Your task to perform on an android device: Empty the shopping cart on bestbuy.com. Add "macbook pro 13 inch" to the cart on bestbuy.com Image 0: 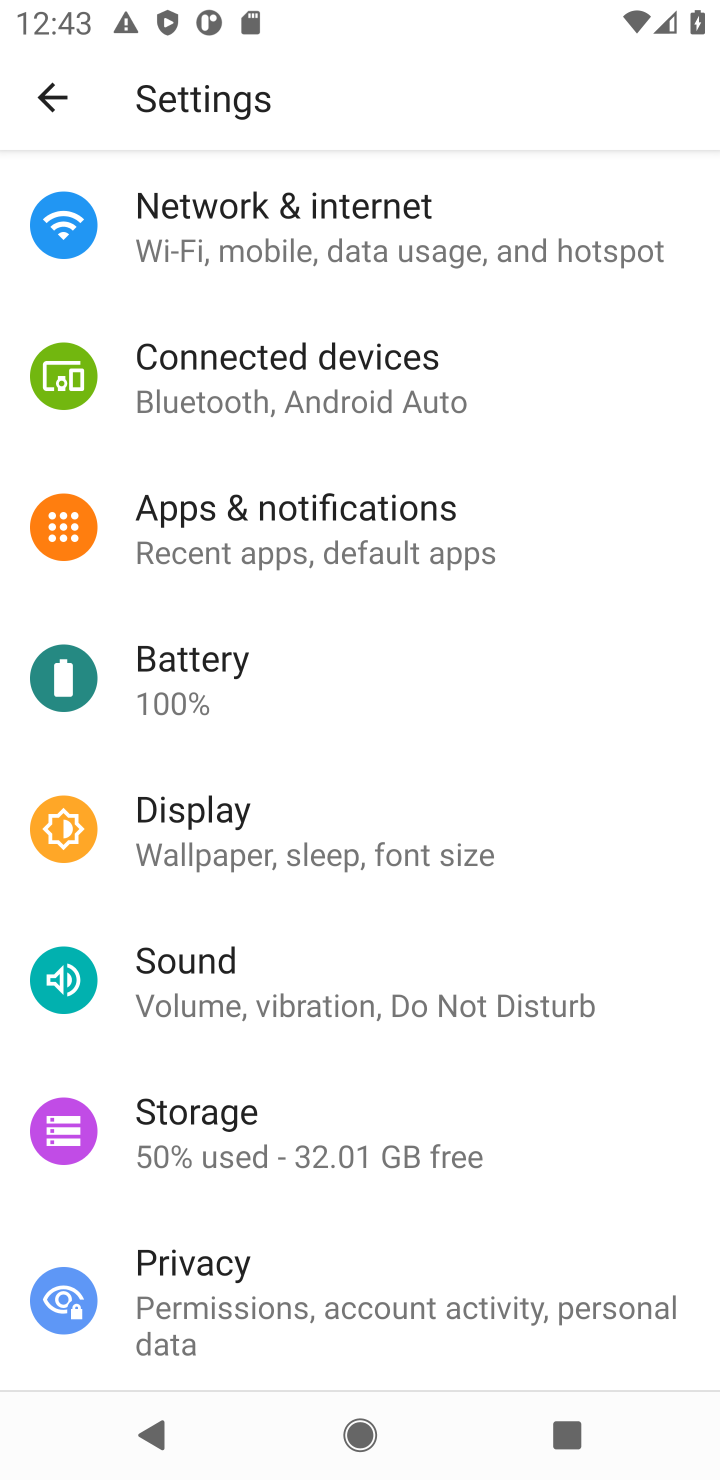
Step 0: press home button
Your task to perform on an android device: Empty the shopping cart on bestbuy.com. Add "macbook pro 13 inch" to the cart on bestbuy.com Image 1: 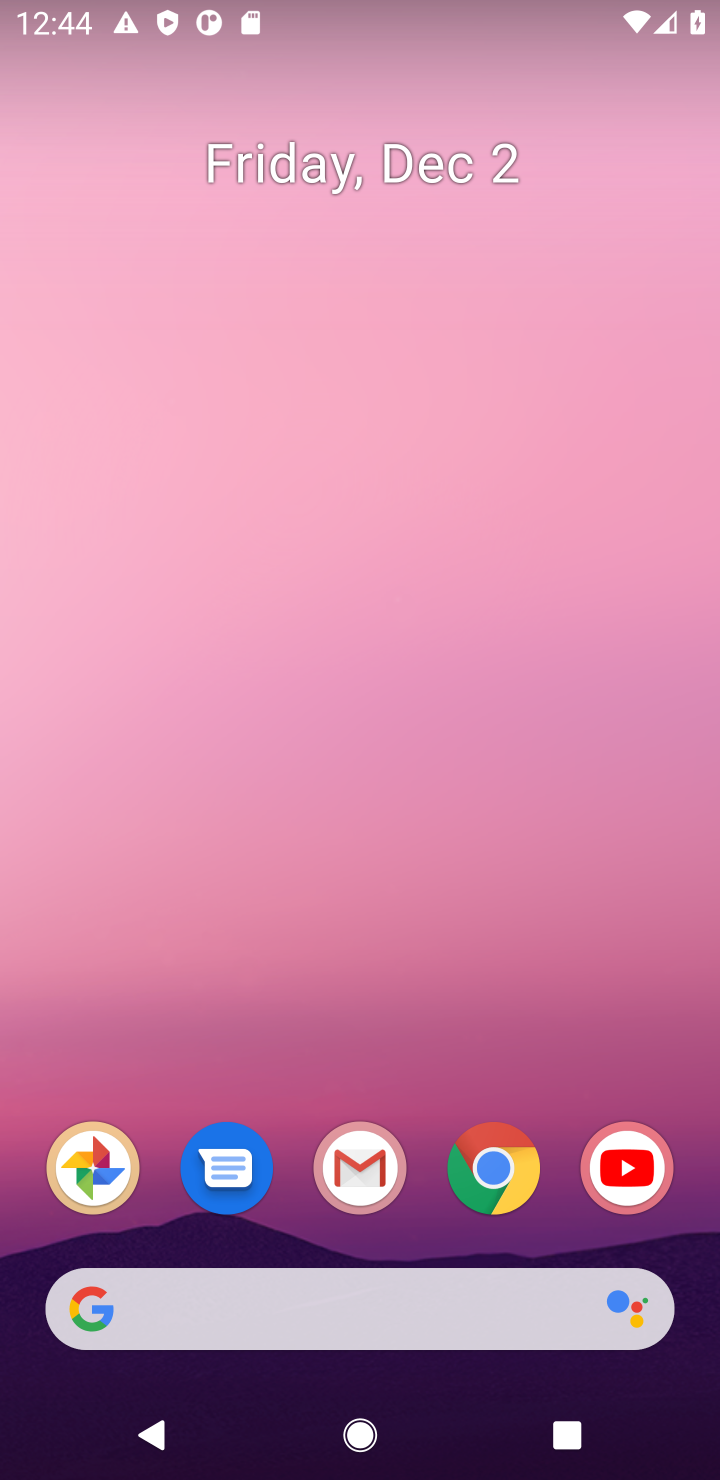
Step 1: click (86, 1297)
Your task to perform on an android device: Empty the shopping cart on bestbuy.com. Add "macbook pro 13 inch" to the cart on bestbuy.com Image 2: 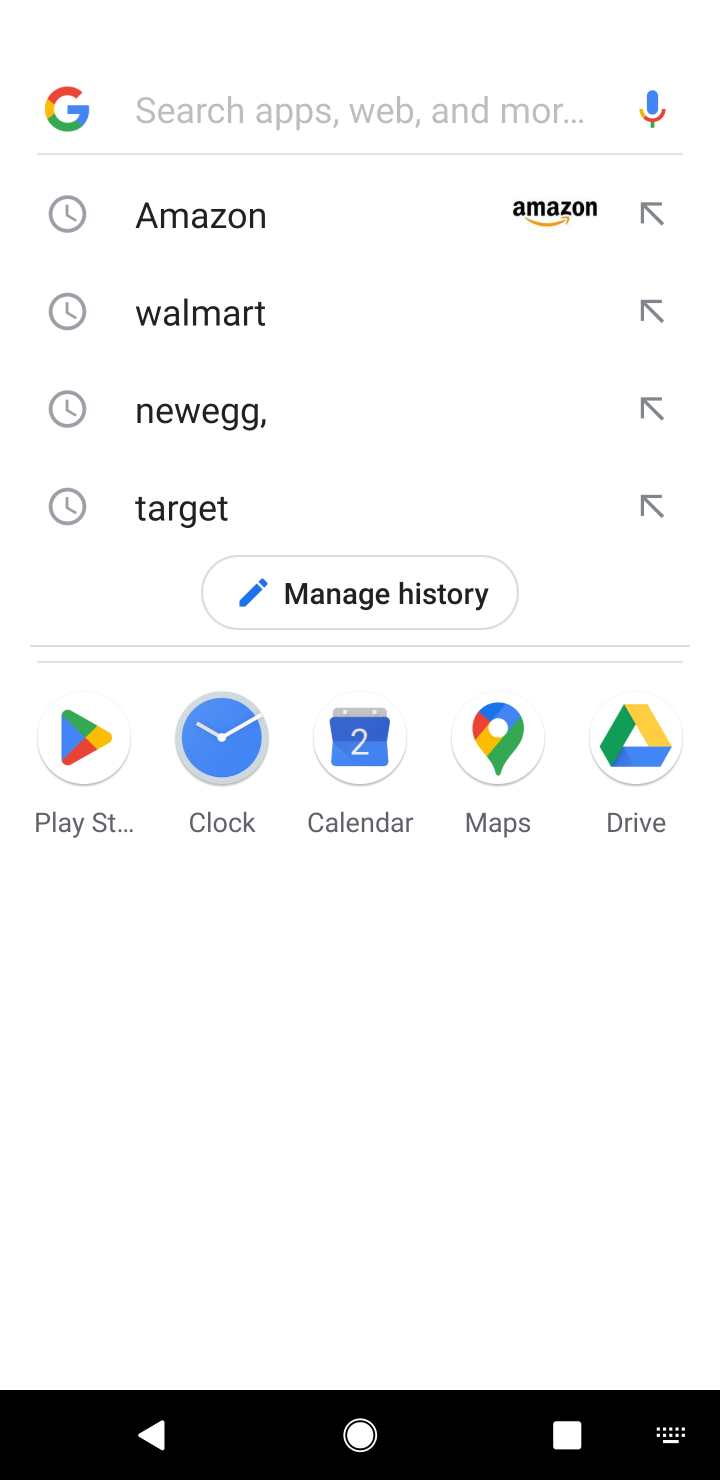
Step 2: type "bestbuy.com"
Your task to perform on an android device: Empty the shopping cart on bestbuy.com. Add "macbook pro 13 inch" to the cart on bestbuy.com Image 3: 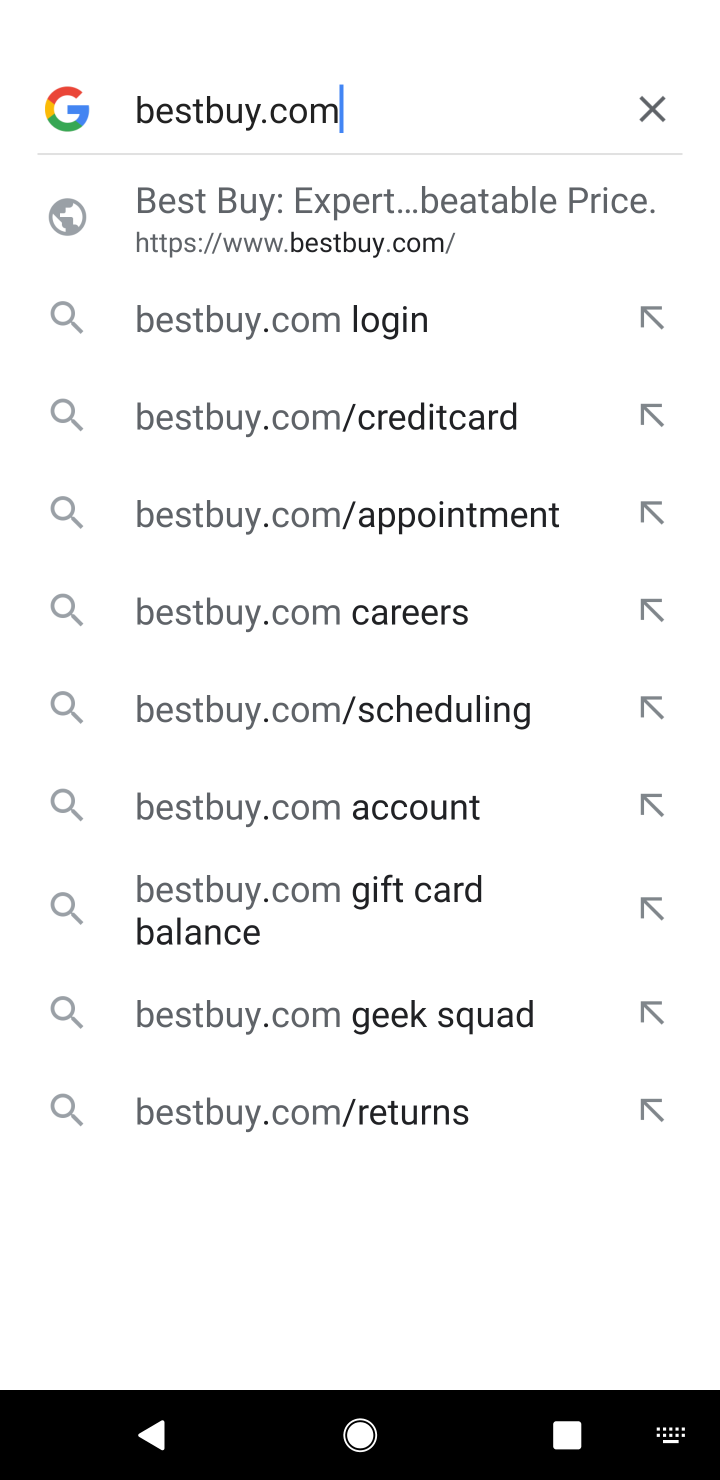
Step 3: click (481, 213)
Your task to perform on an android device: Empty the shopping cart on bestbuy.com. Add "macbook pro 13 inch" to the cart on bestbuy.com Image 4: 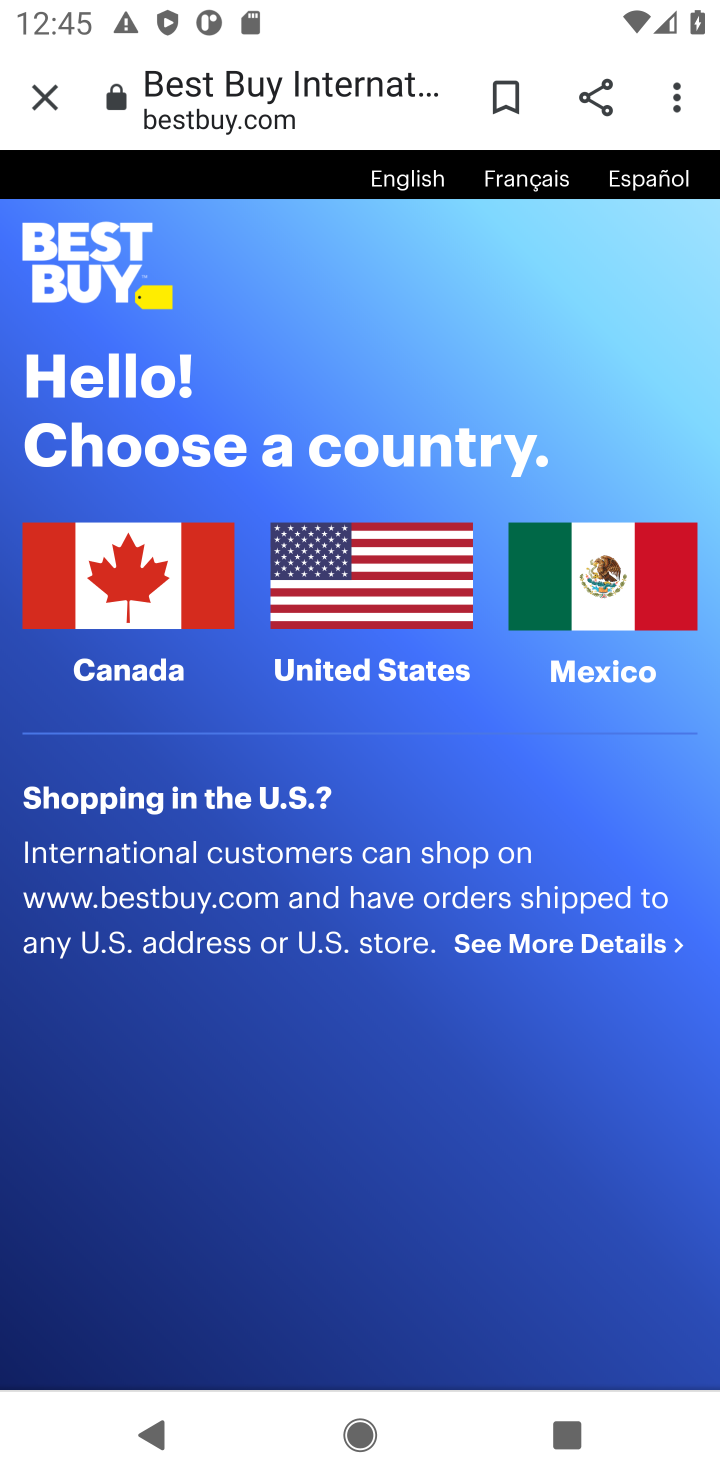
Step 4: click (371, 586)
Your task to perform on an android device: Empty the shopping cart on bestbuy.com. Add "macbook pro 13 inch" to the cart on bestbuy.com Image 5: 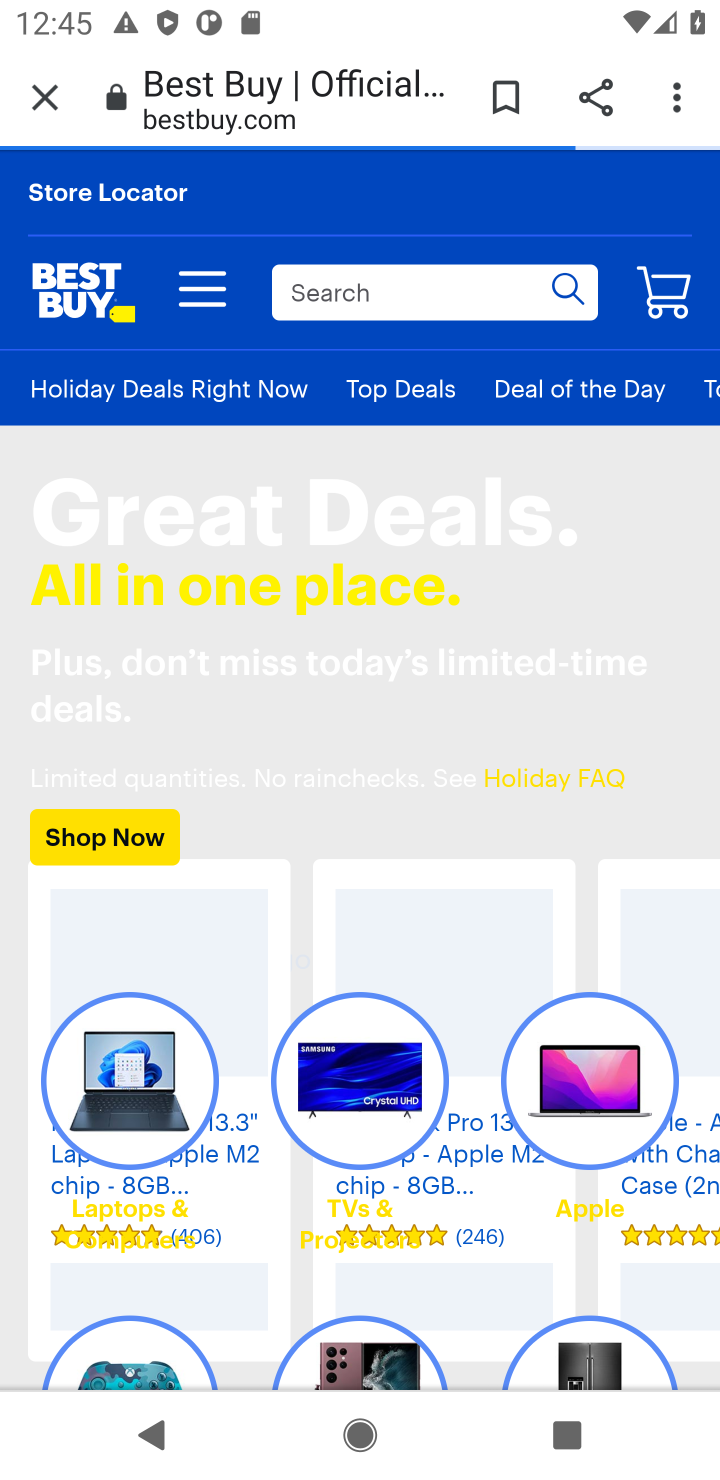
Step 5: click (412, 289)
Your task to perform on an android device: Empty the shopping cart on bestbuy.com. Add "macbook pro 13 inch" to the cart on bestbuy.com Image 6: 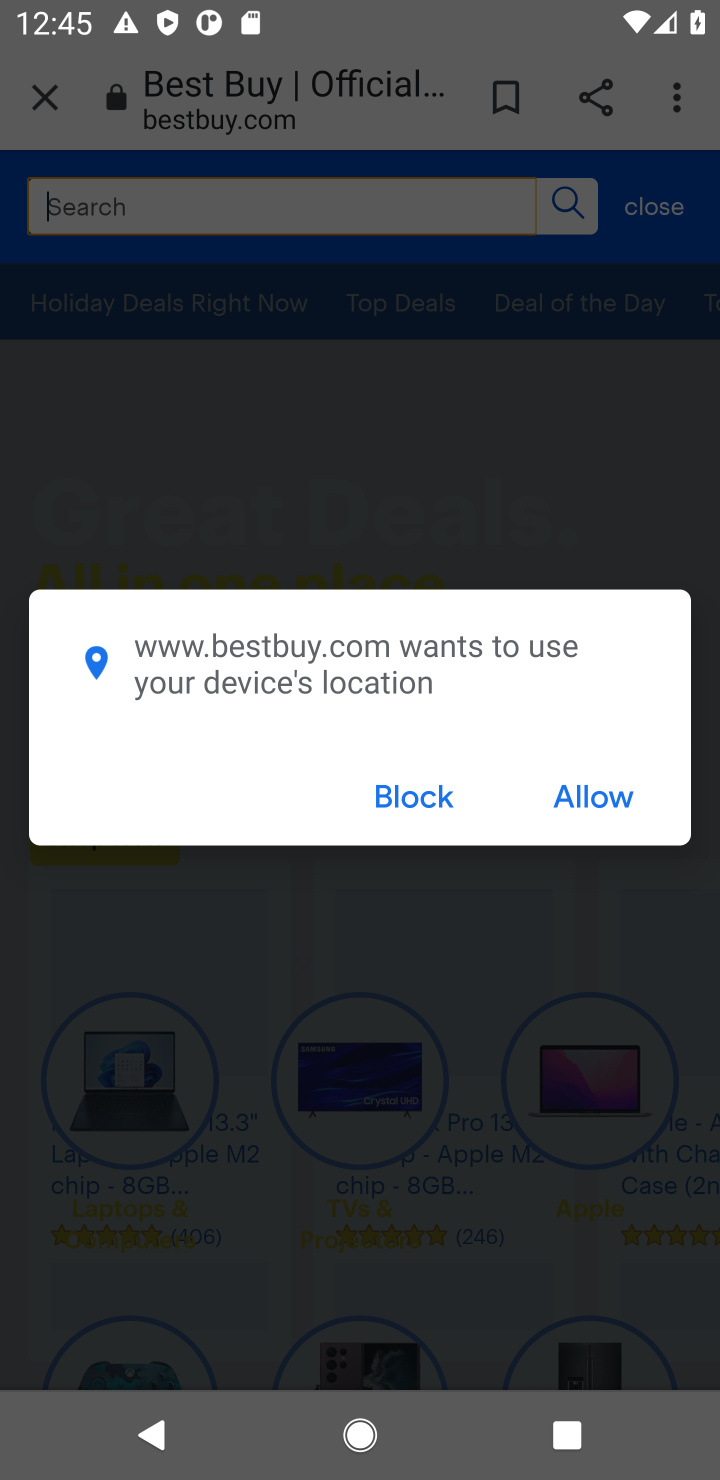
Step 6: type "macb"
Your task to perform on an android device: Empty the shopping cart on bestbuy.com. Add "macbook pro 13 inch" to the cart on bestbuy.com Image 7: 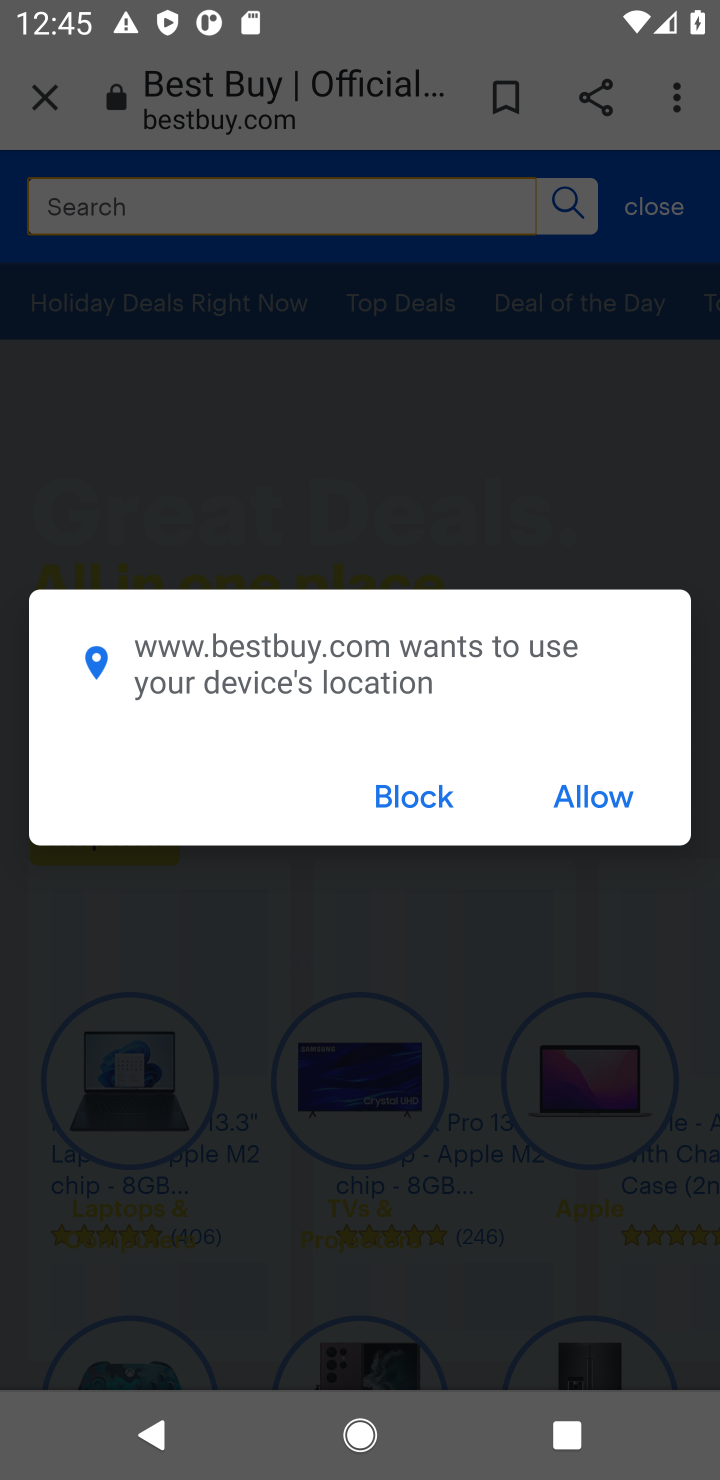
Step 7: click (412, 781)
Your task to perform on an android device: Empty the shopping cart on bestbuy.com. Add "macbook pro 13 inch" to the cart on bestbuy.com Image 8: 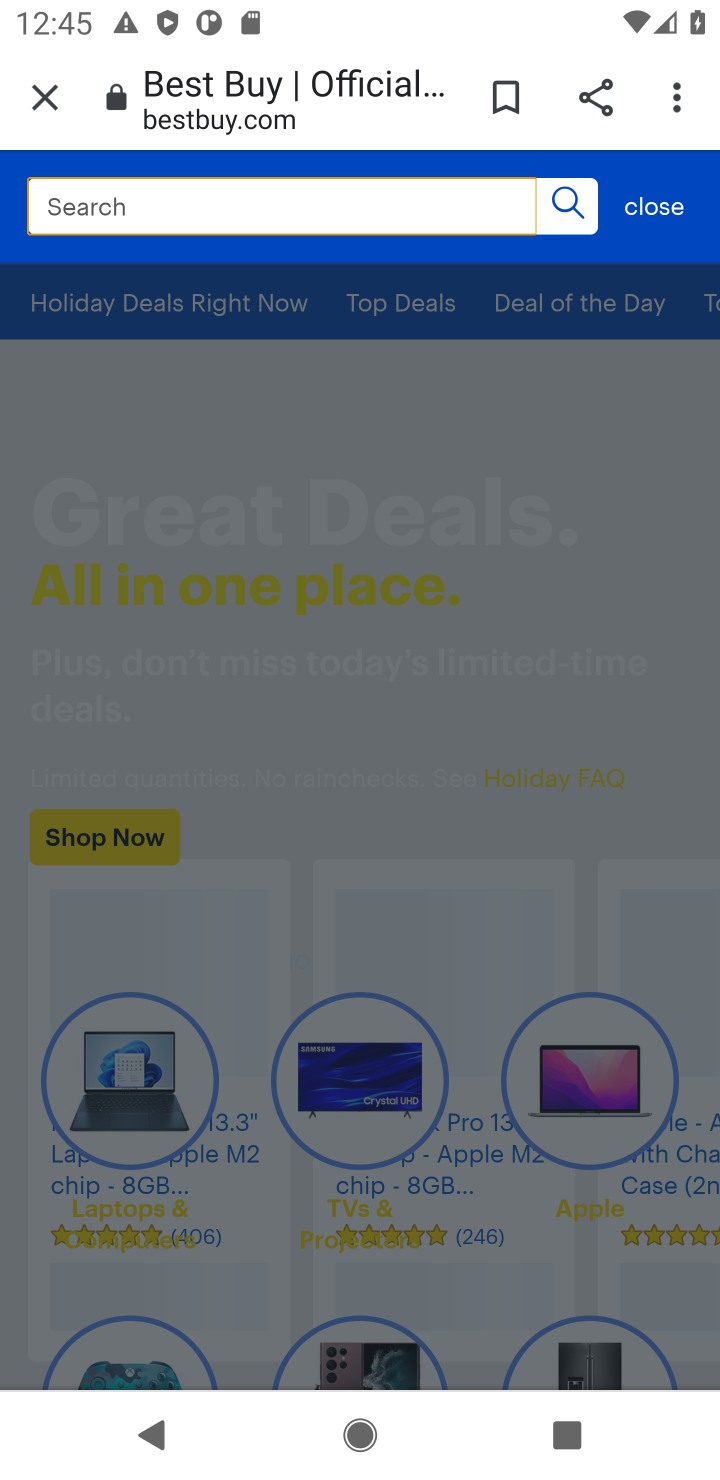
Step 8: type "macbook pro 13 inch"
Your task to perform on an android device: Empty the shopping cart on bestbuy.com. Add "macbook pro 13 inch" to the cart on bestbuy.com Image 9: 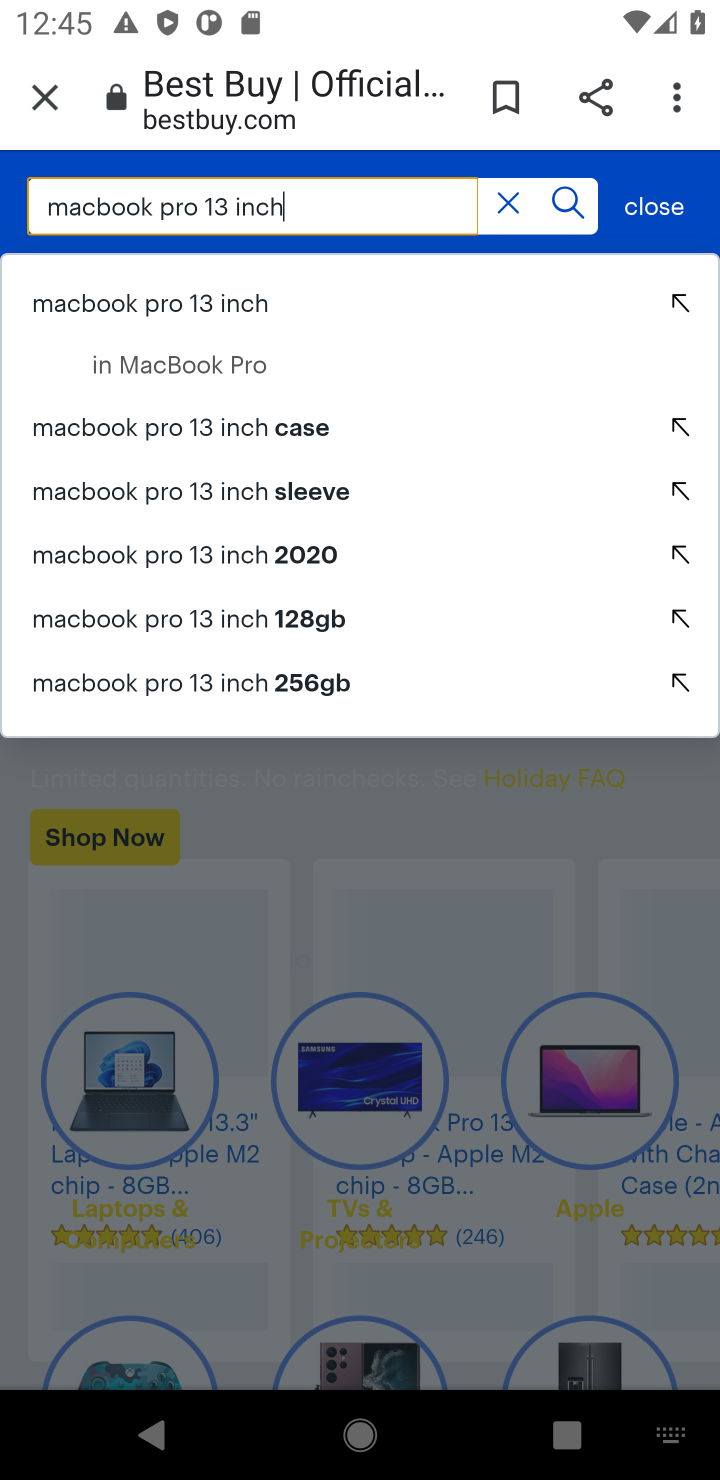
Step 9: click (152, 313)
Your task to perform on an android device: Empty the shopping cart on bestbuy.com. Add "macbook pro 13 inch" to the cart on bestbuy.com Image 10: 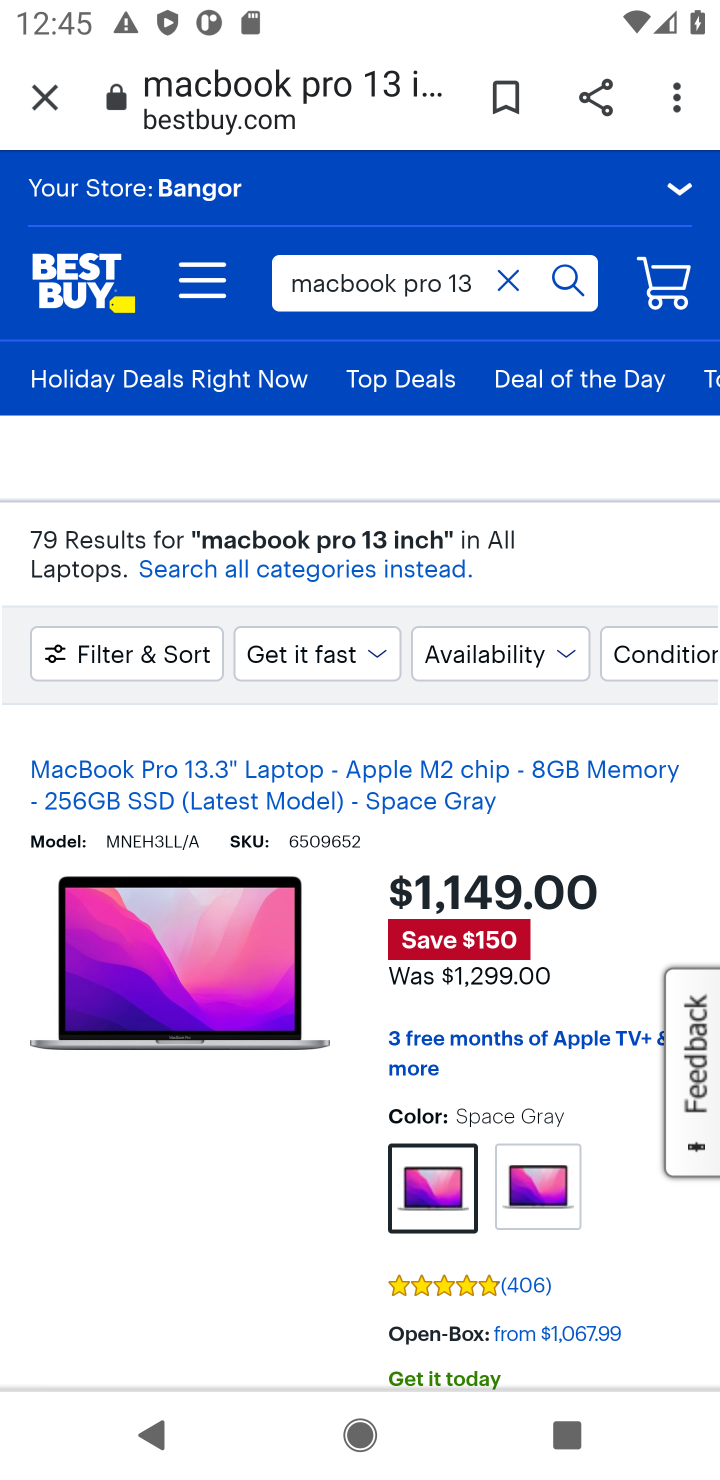
Step 10: drag from (210, 1012) to (202, 512)
Your task to perform on an android device: Empty the shopping cart on bestbuy.com. Add "macbook pro 13 inch" to the cart on bestbuy.com Image 11: 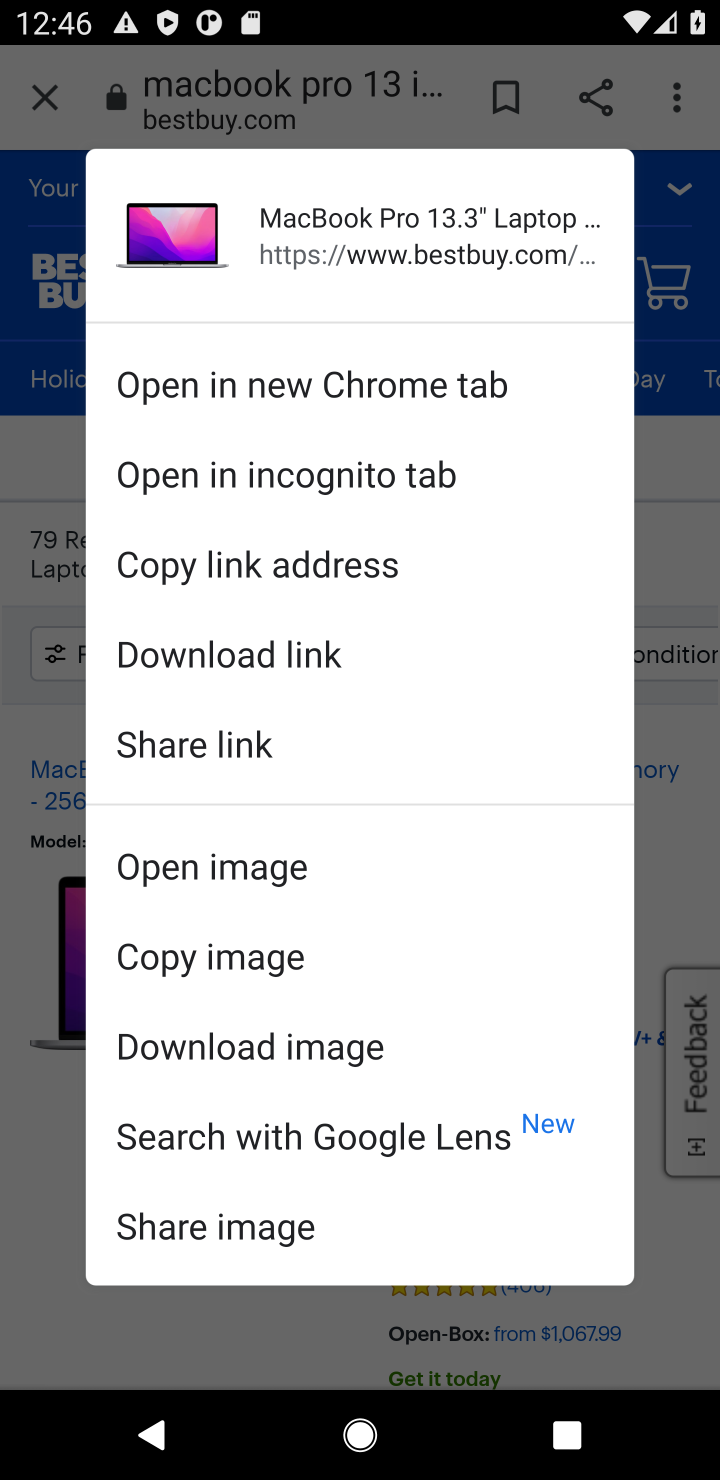
Step 11: click (36, 1316)
Your task to perform on an android device: Empty the shopping cart on bestbuy.com. Add "macbook pro 13 inch" to the cart on bestbuy.com Image 12: 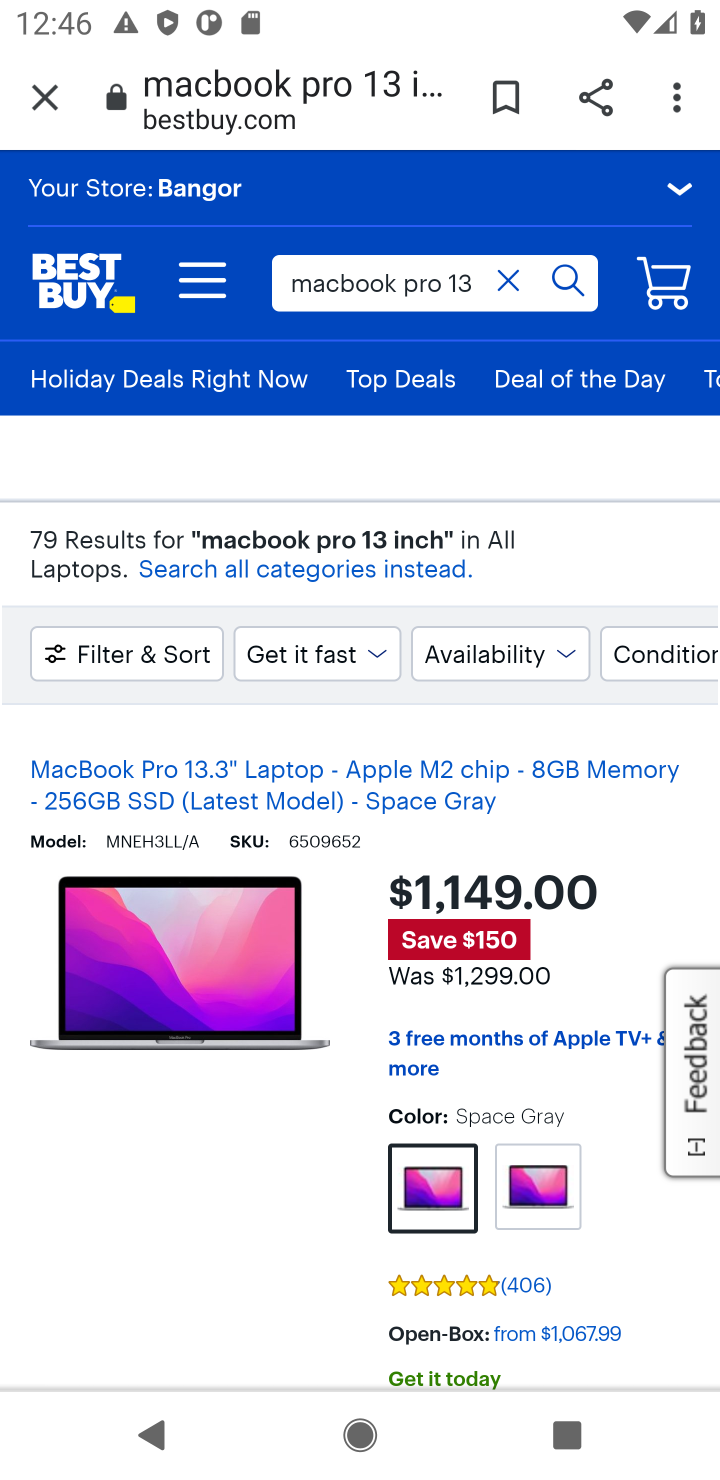
Step 12: drag from (571, 905) to (516, 412)
Your task to perform on an android device: Empty the shopping cart on bestbuy.com. Add "macbook pro 13 inch" to the cart on bestbuy.com Image 13: 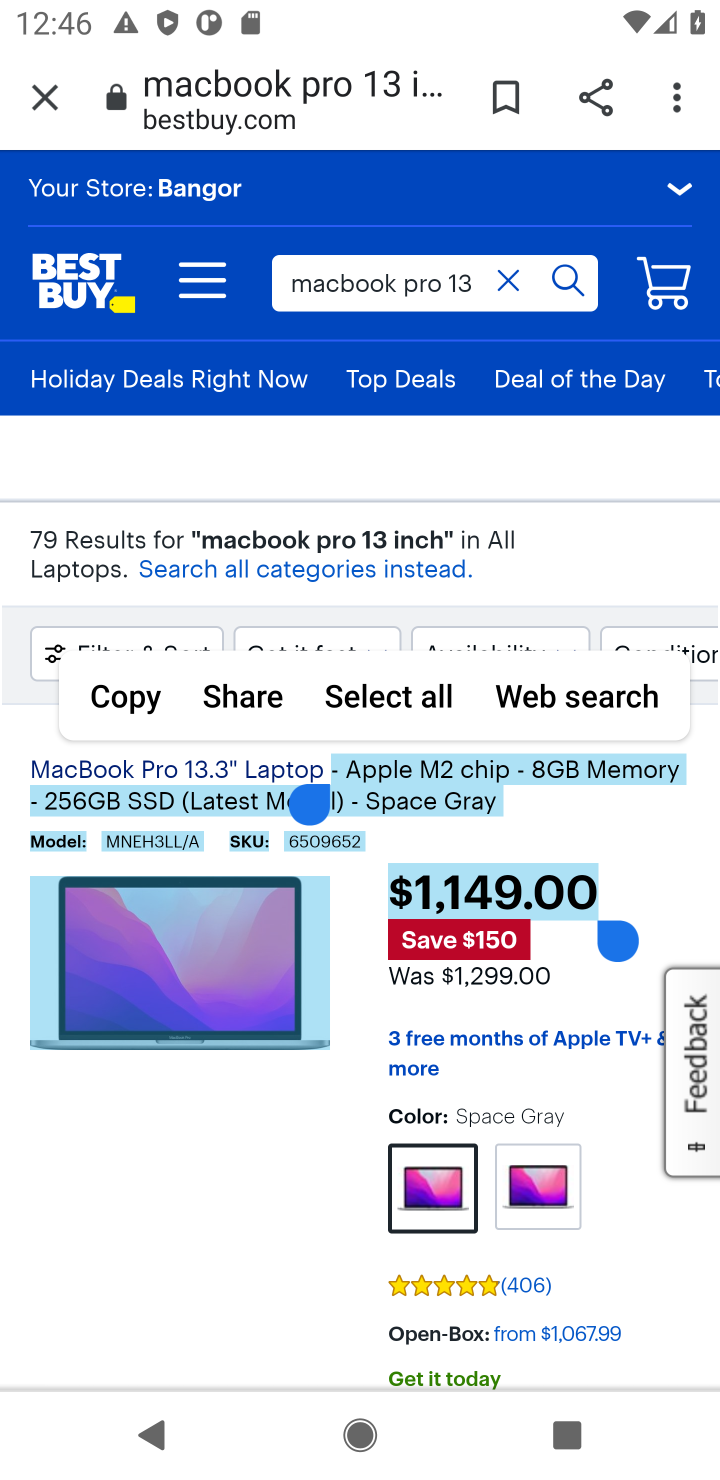
Step 13: click (661, 861)
Your task to perform on an android device: Empty the shopping cart on bestbuy.com. Add "macbook pro 13 inch" to the cart on bestbuy.com Image 14: 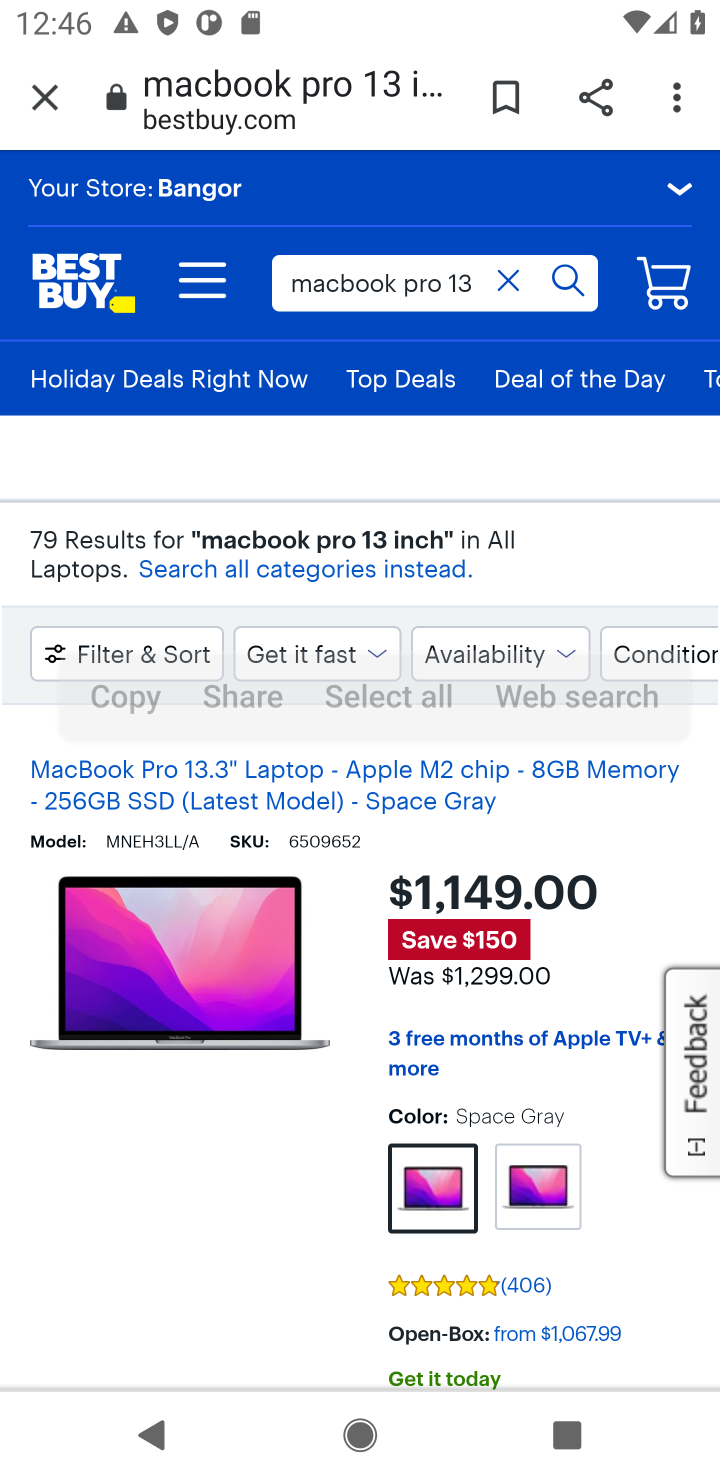
Step 14: click (661, 863)
Your task to perform on an android device: Empty the shopping cart on bestbuy.com. Add "macbook pro 13 inch" to the cart on bestbuy.com Image 15: 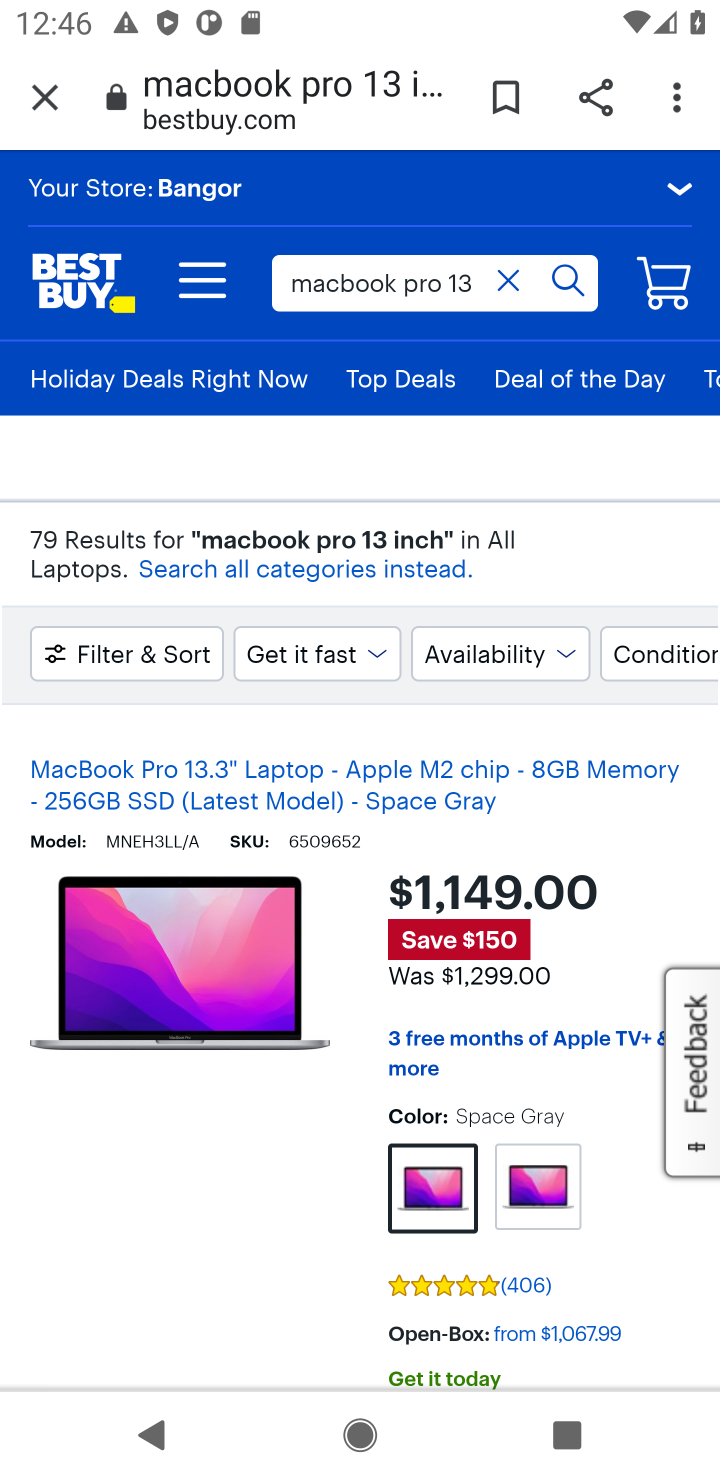
Step 15: drag from (660, 865) to (523, 386)
Your task to perform on an android device: Empty the shopping cart on bestbuy.com. Add "macbook pro 13 inch" to the cart on bestbuy.com Image 16: 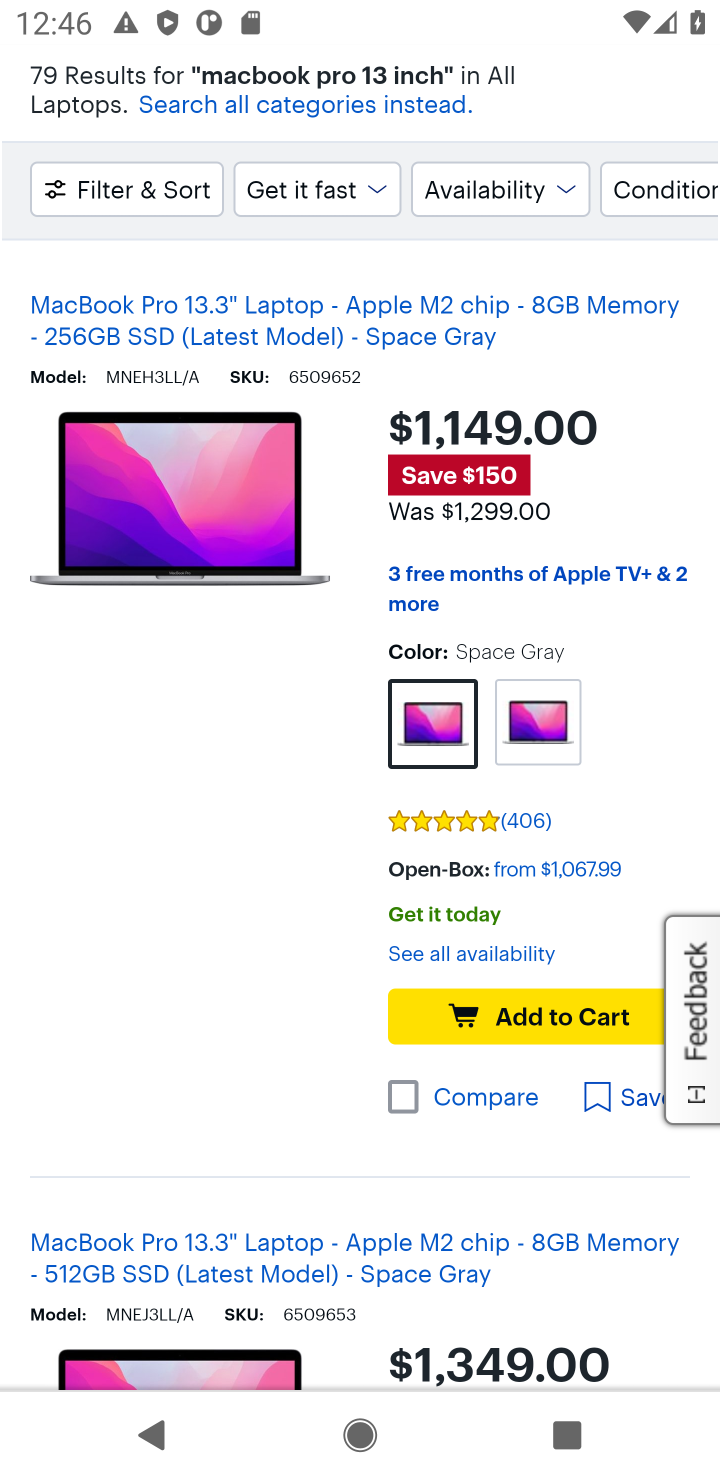
Step 16: click (508, 1007)
Your task to perform on an android device: Empty the shopping cart on bestbuy.com. Add "macbook pro 13 inch" to the cart on bestbuy.com Image 17: 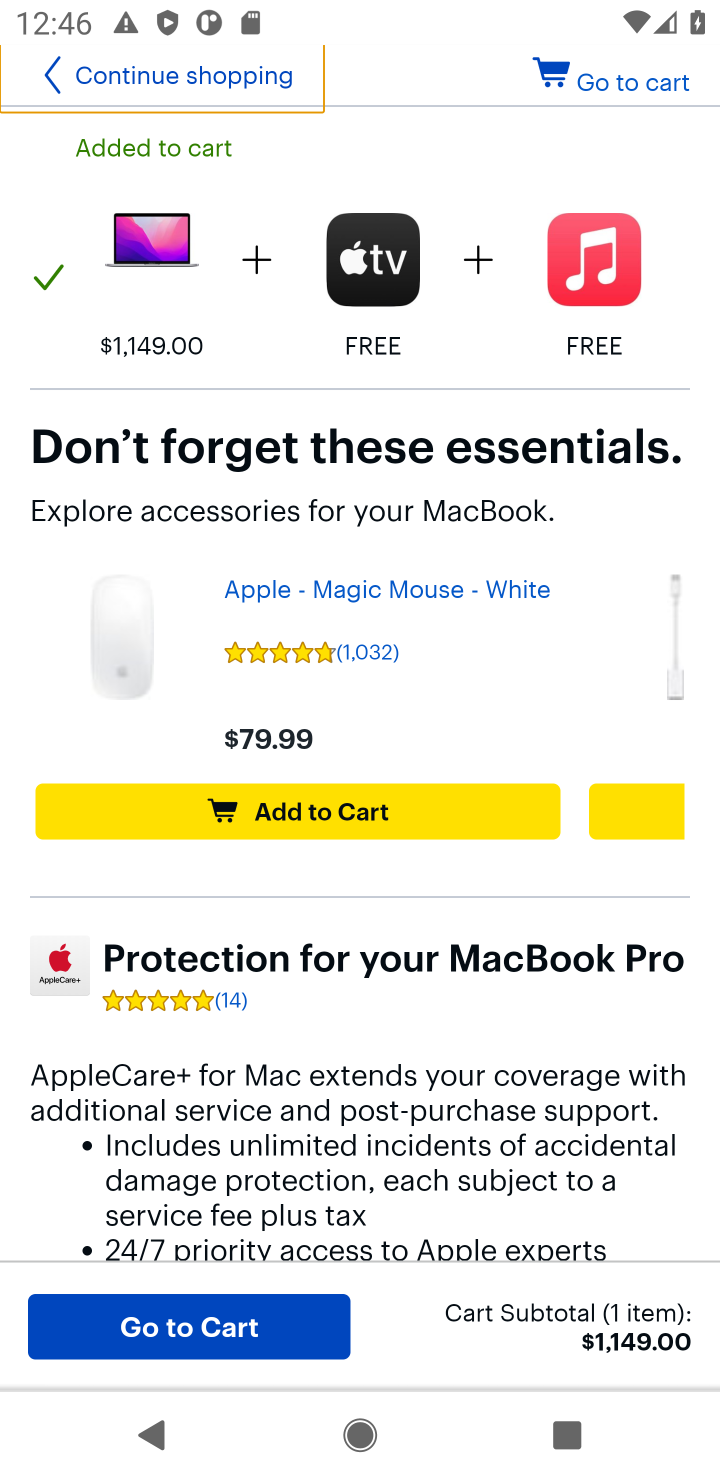
Step 17: click (192, 1336)
Your task to perform on an android device: Empty the shopping cart on bestbuy.com. Add "macbook pro 13 inch" to the cart on bestbuy.com Image 18: 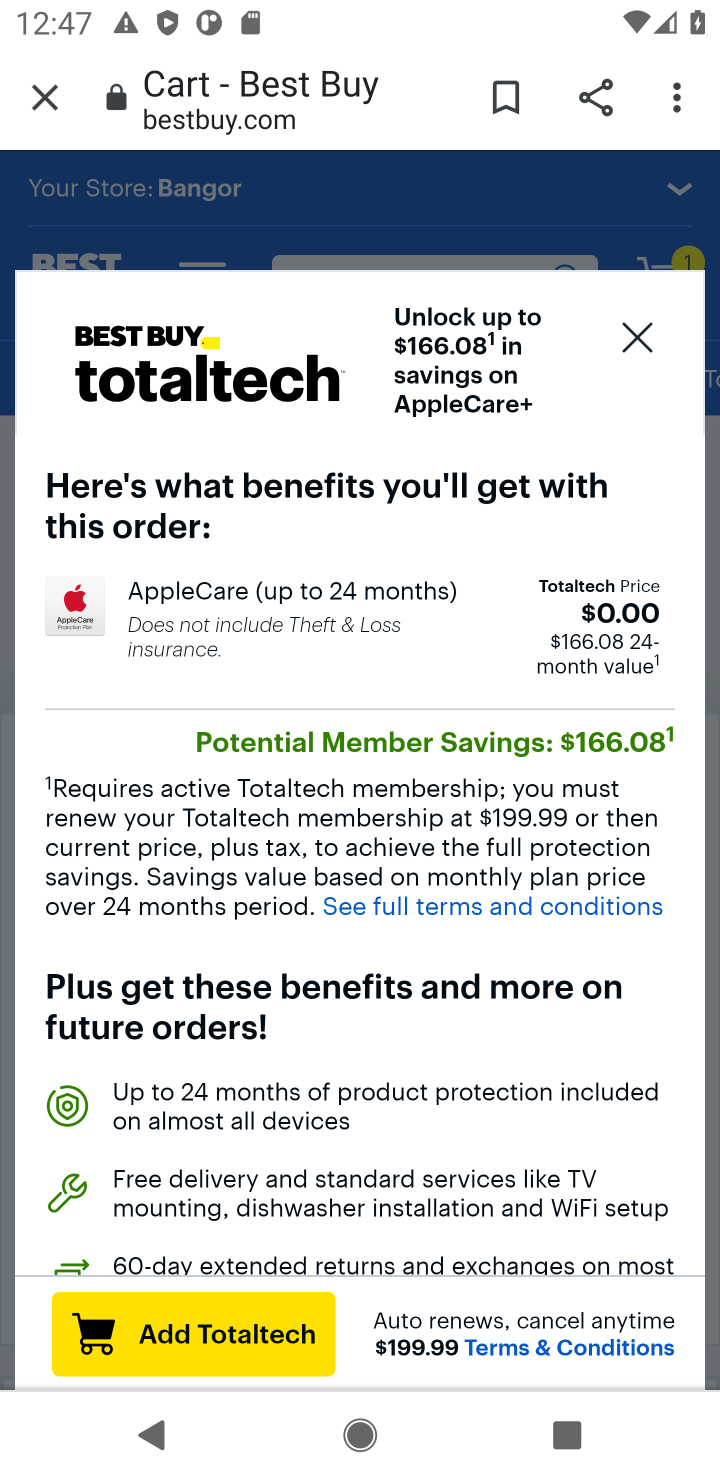
Step 18: click (636, 340)
Your task to perform on an android device: Empty the shopping cart on bestbuy.com. Add "macbook pro 13 inch" to the cart on bestbuy.com Image 19: 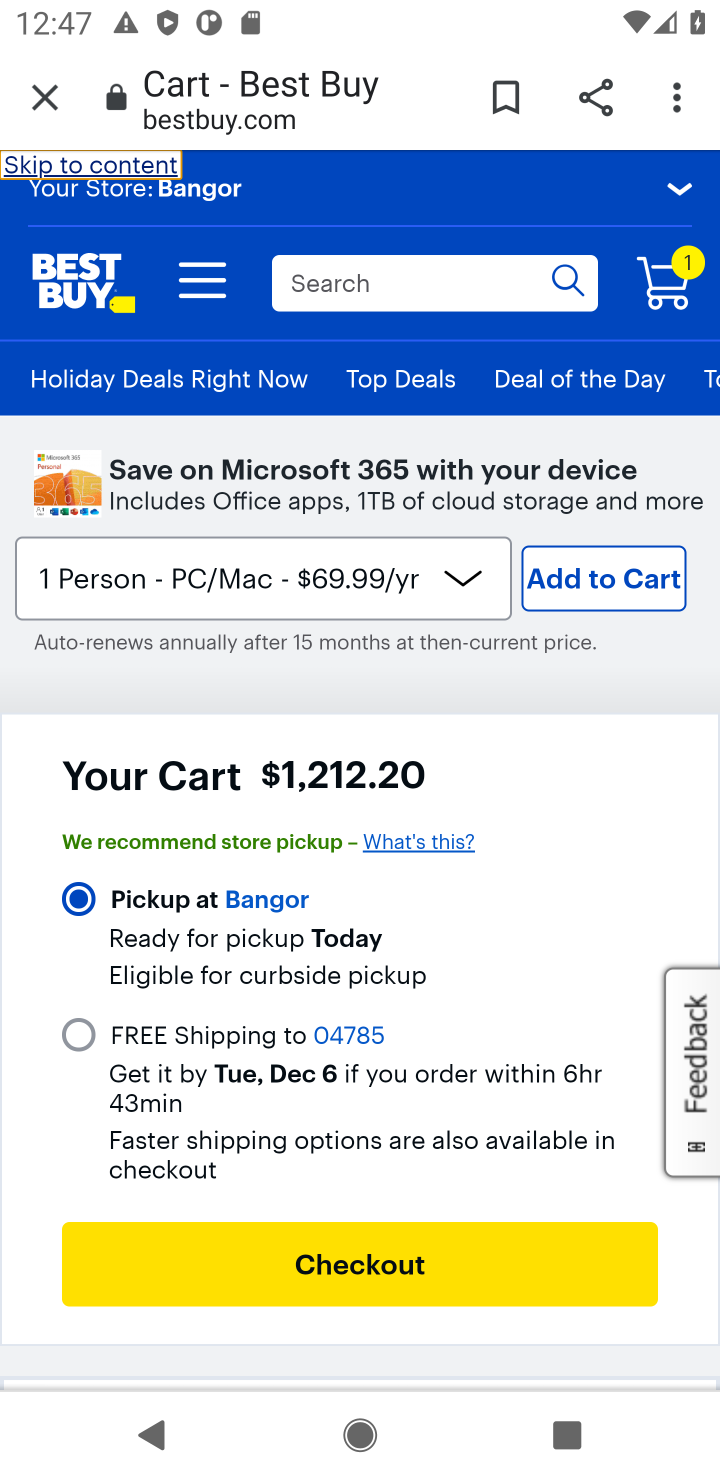
Step 19: click (327, 1263)
Your task to perform on an android device: Empty the shopping cart on bestbuy.com. Add "macbook pro 13 inch" to the cart on bestbuy.com Image 20: 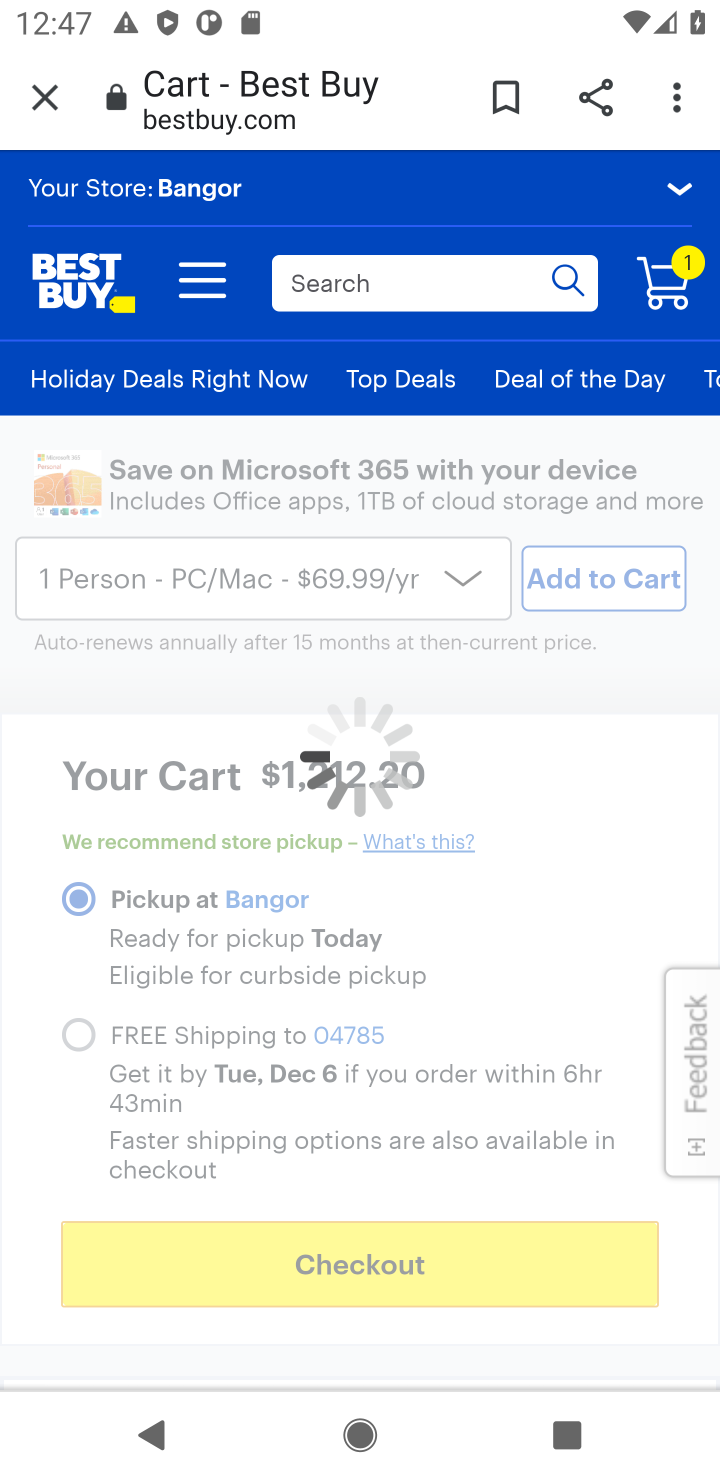
Step 20: task complete